Your task to perform on an android device: toggle priority inbox in the gmail app Image 0: 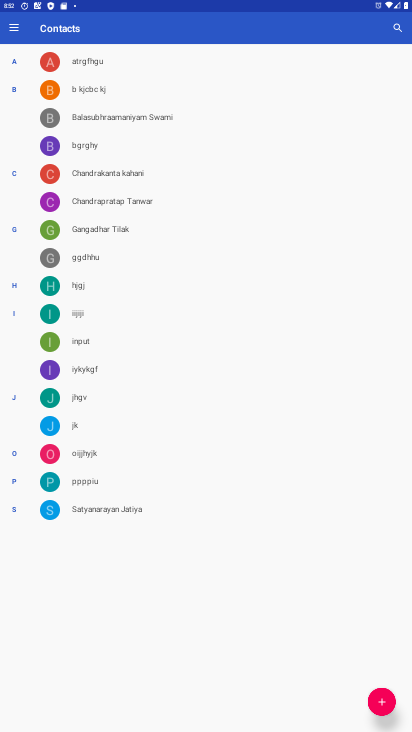
Step 0: press home button
Your task to perform on an android device: toggle priority inbox in the gmail app Image 1: 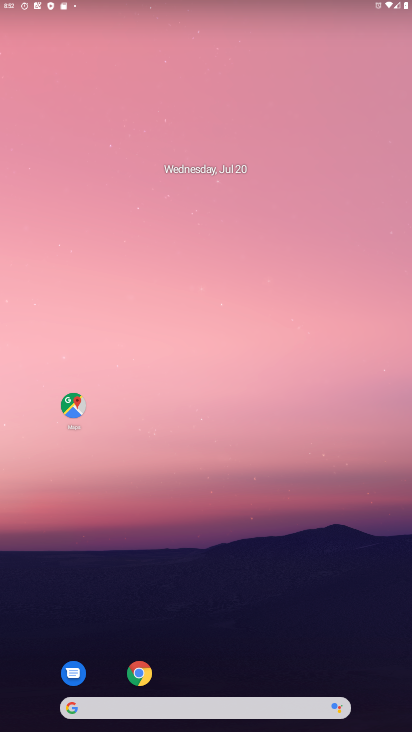
Step 1: drag from (217, 684) to (235, 186)
Your task to perform on an android device: toggle priority inbox in the gmail app Image 2: 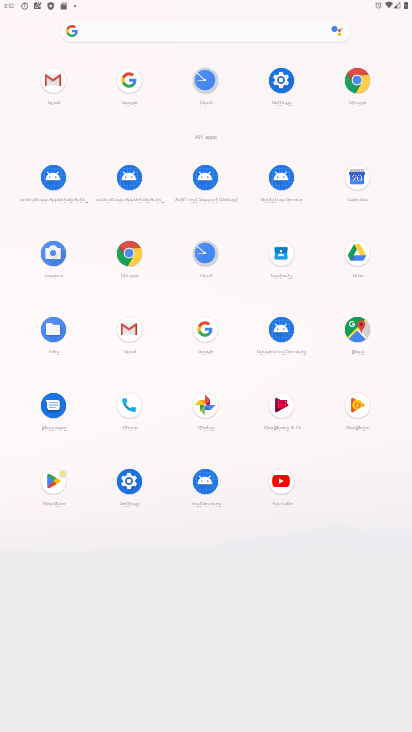
Step 2: click (128, 327)
Your task to perform on an android device: toggle priority inbox in the gmail app Image 3: 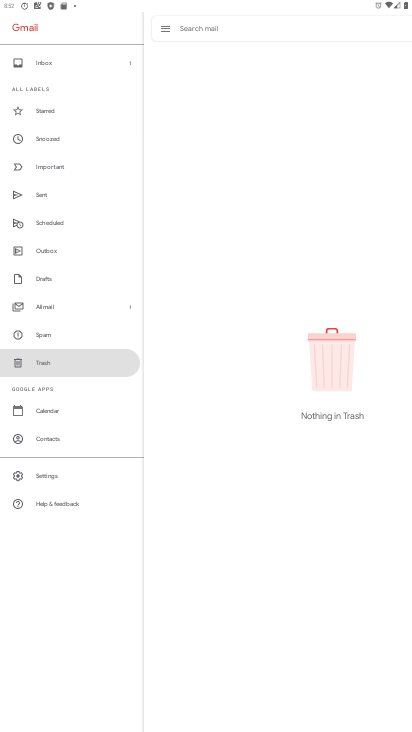
Step 3: click (29, 477)
Your task to perform on an android device: toggle priority inbox in the gmail app Image 4: 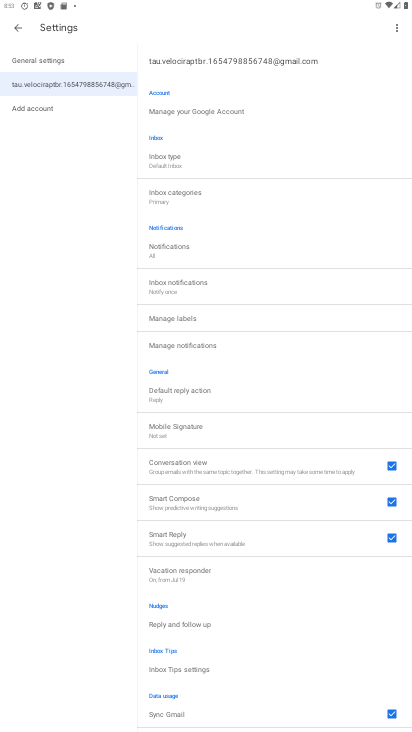
Step 4: click (176, 163)
Your task to perform on an android device: toggle priority inbox in the gmail app Image 5: 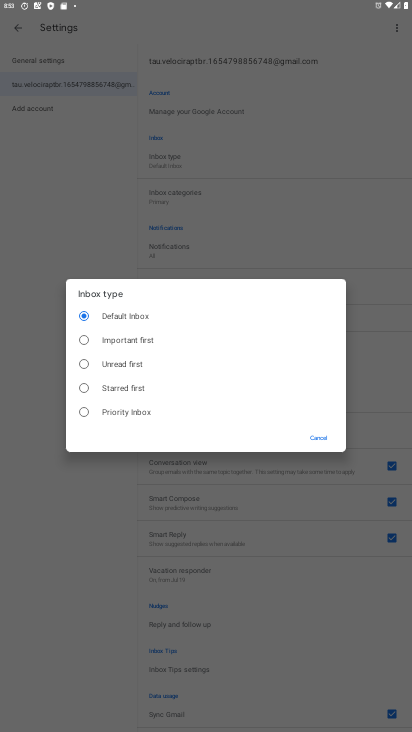
Step 5: click (84, 411)
Your task to perform on an android device: toggle priority inbox in the gmail app Image 6: 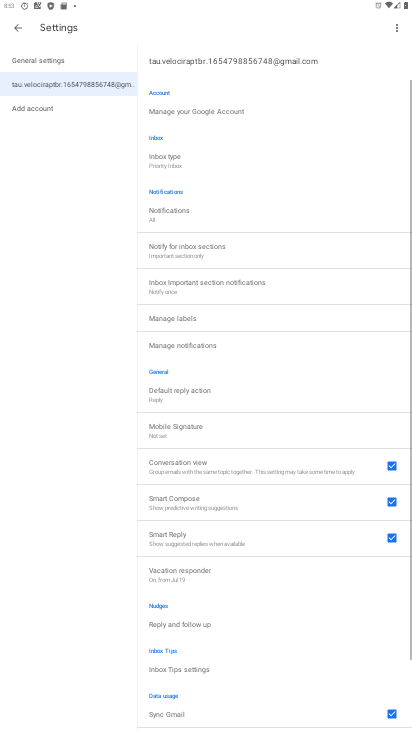
Step 6: task complete